Your task to perform on an android device: Add "usb-c to usb-a" to the cart on ebay.com Image 0: 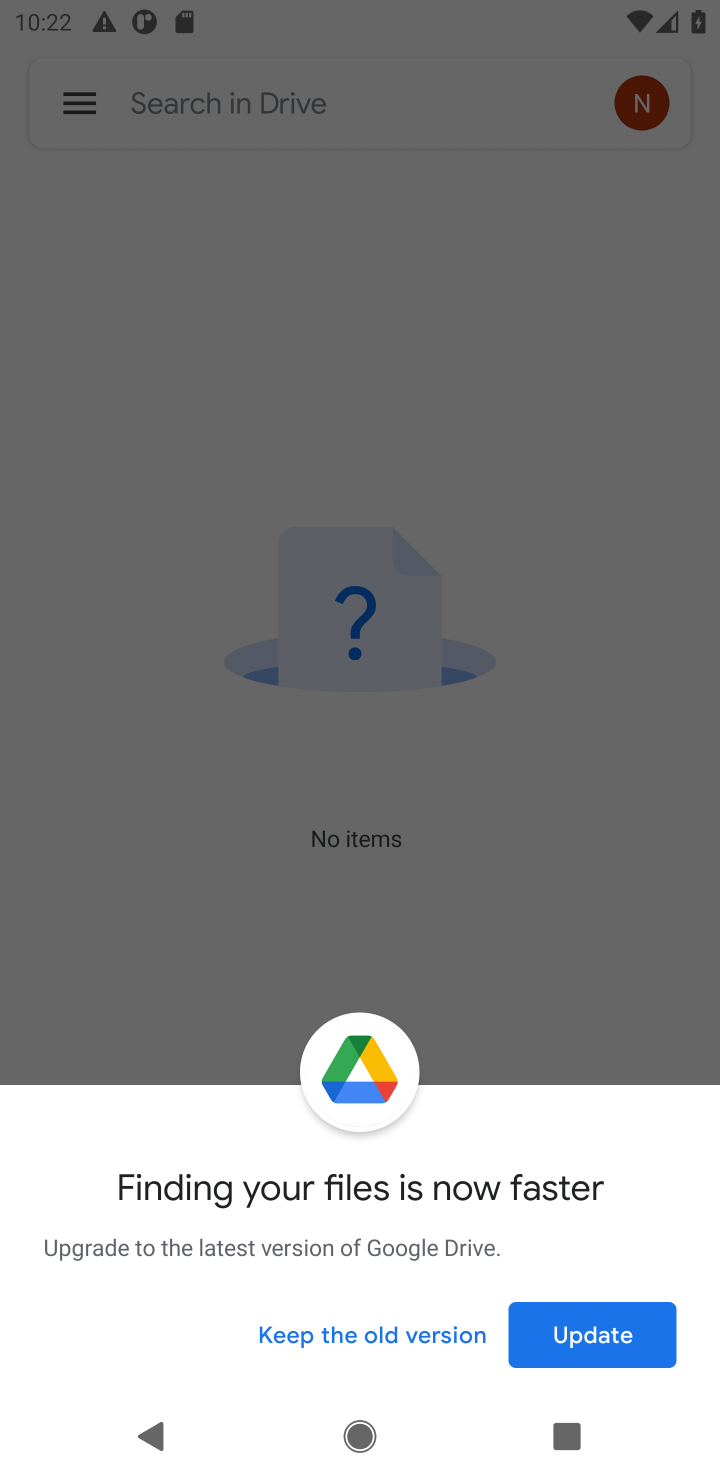
Step 0: press home button
Your task to perform on an android device: Add "usb-c to usb-a" to the cart on ebay.com Image 1: 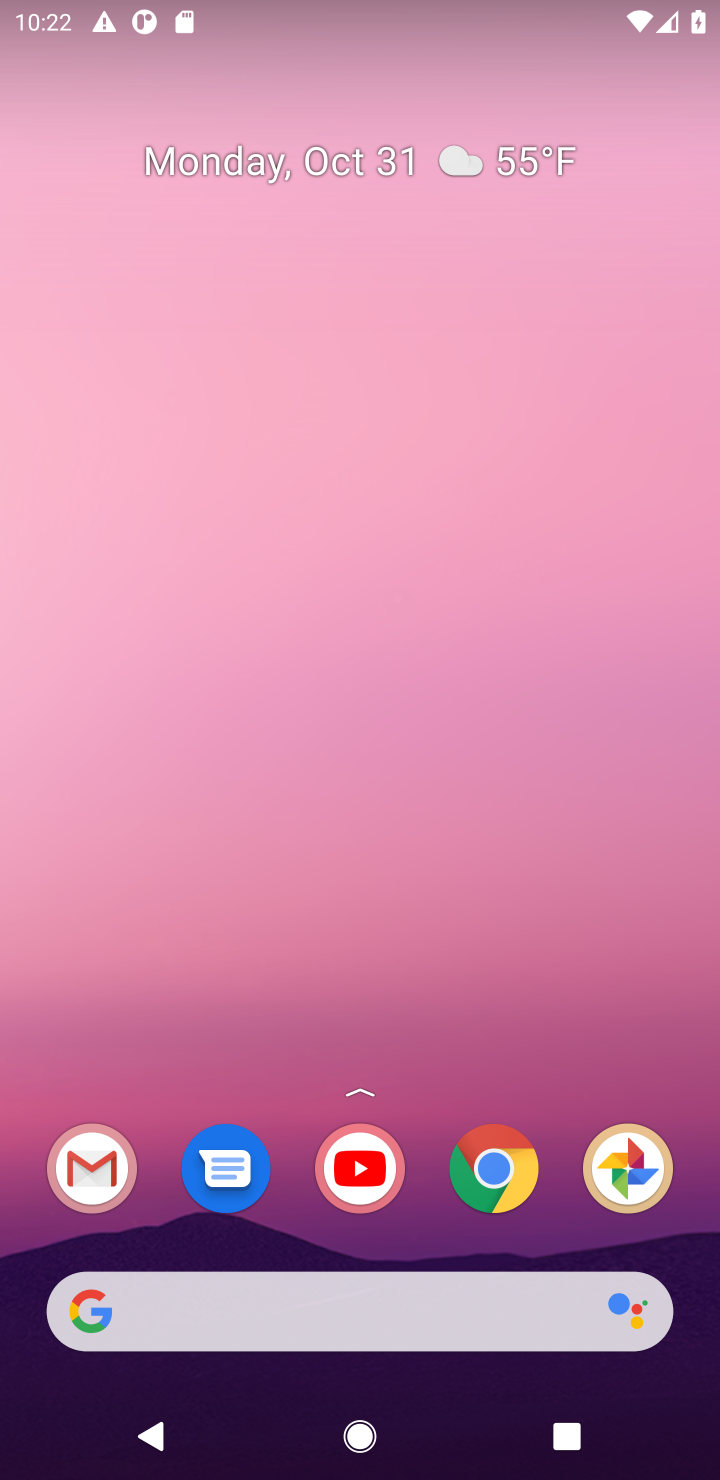
Step 1: click (487, 1165)
Your task to perform on an android device: Add "usb-c to usb-a" to the cart on ebay.com Image 2: 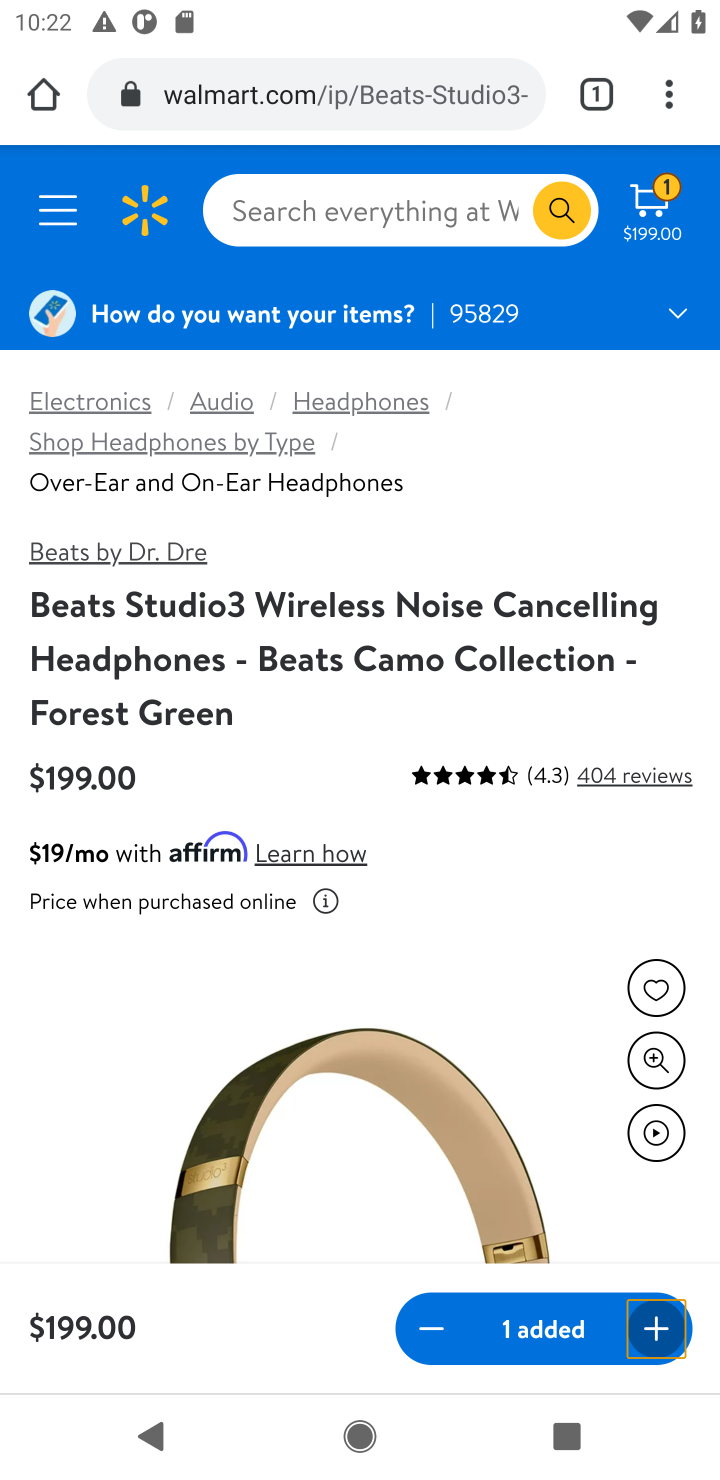
Step 2: click (313, 99)
Your task to perform on an android device: Add "usb-c to usb-a" to the cart on ebay.com Image 3: 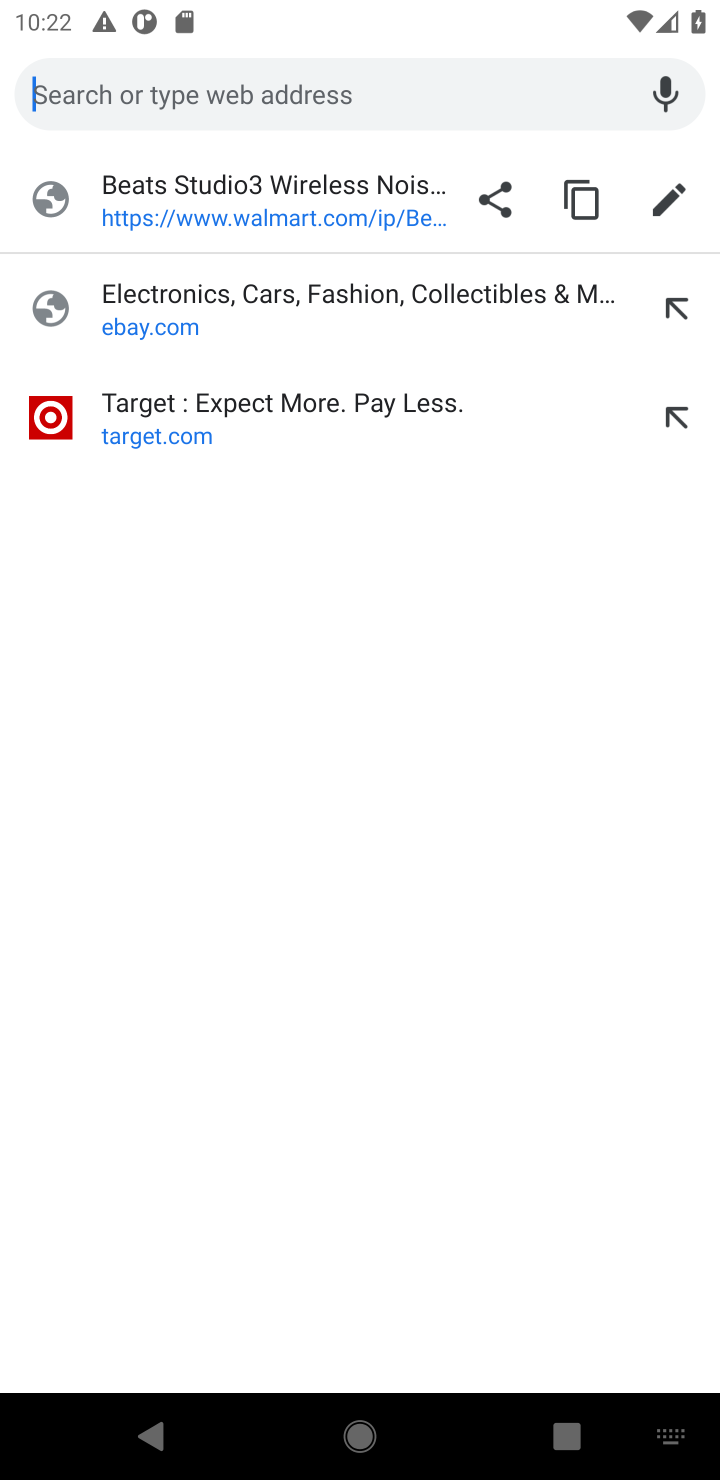
Step 3: type "ebay"
Your task to perform on an android device: Add "usb-c to usb-a" to the cart on ebay.com Image 4: 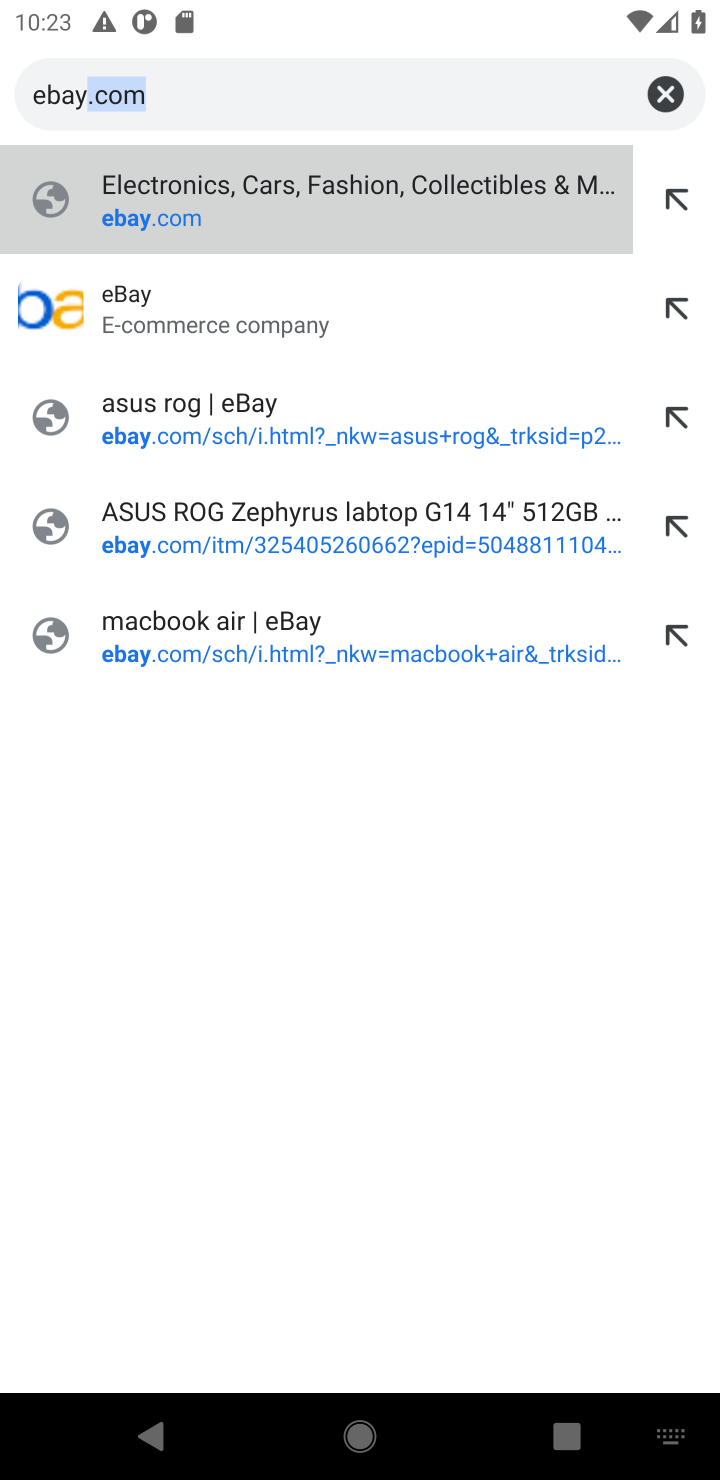
Step 4: press enter
Your task to perform on an android device: Add "usb-c to usb-a" to the cart on ebay.com Image 5: 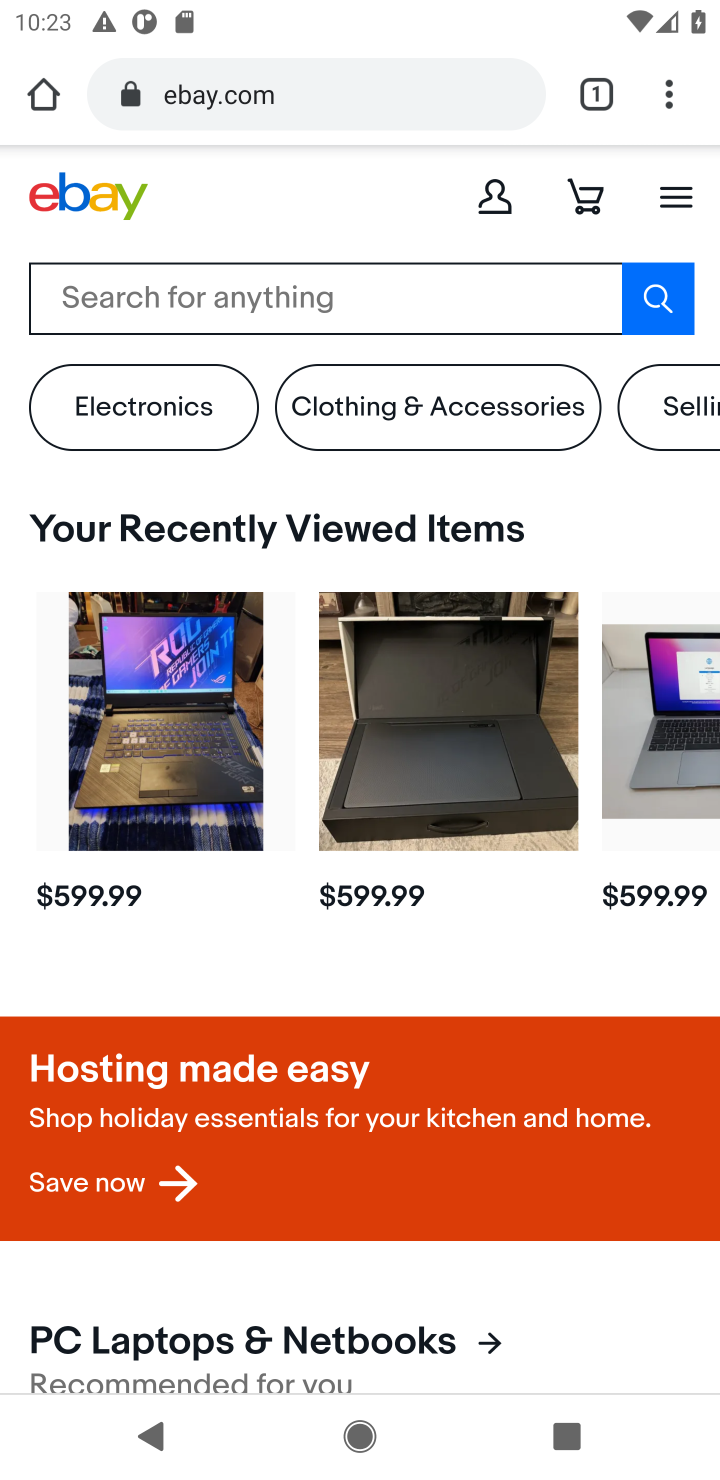
Step 5: click (369, 289)
Your task to perform on an android device: Add "usb-c to usb-a" to the cart on ebay.com Image 6: 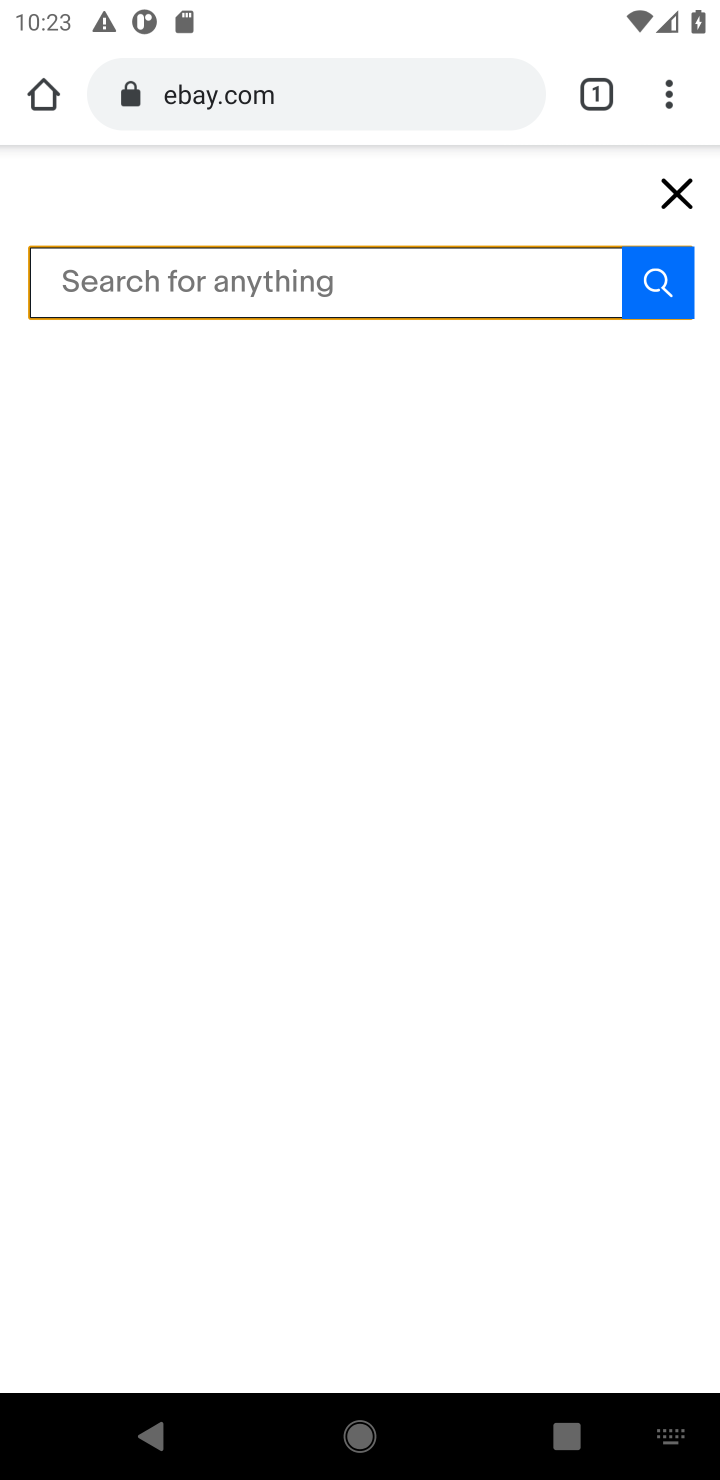
Step 6: type "usb-c to usb-a"
Your task to perform on an android device: Add "usb-c to usb-a" to the cart on ebay.com Image 7: 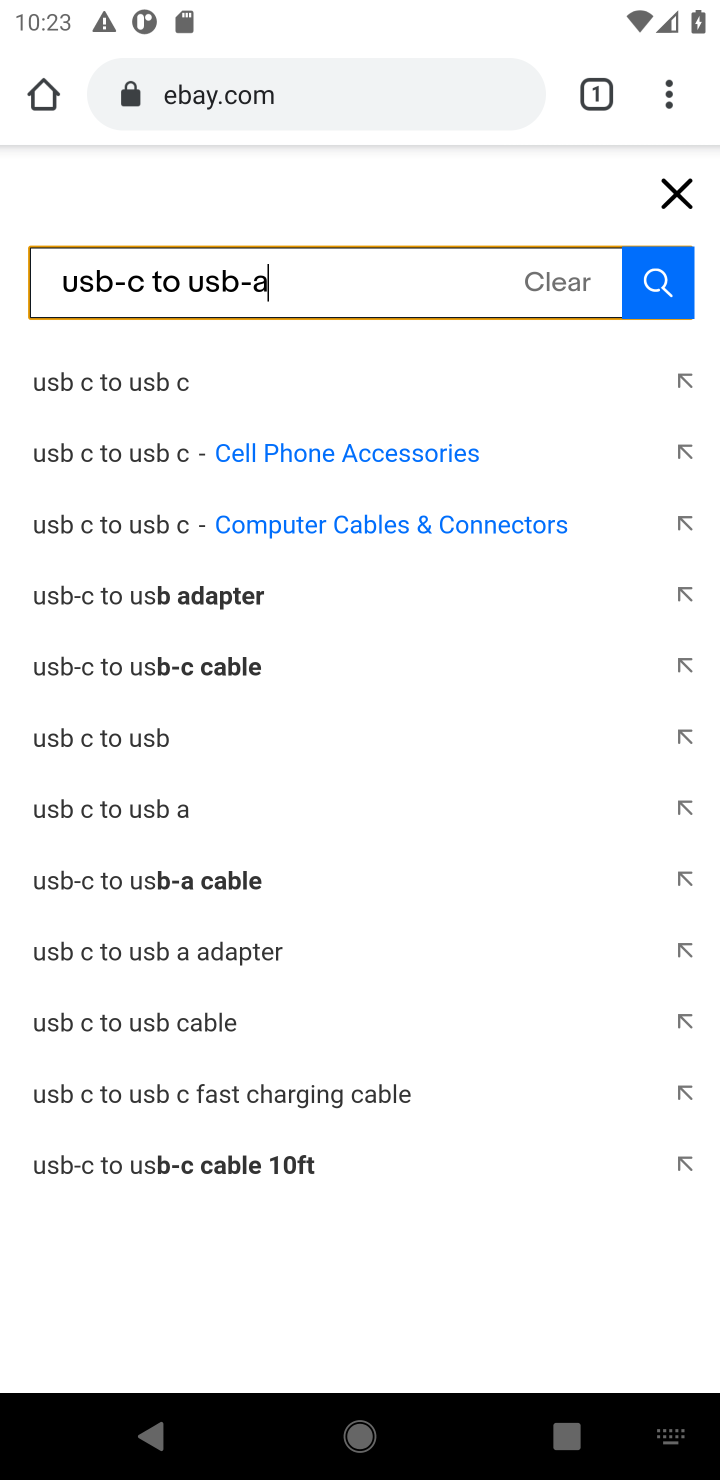
Step 7: press enter
Your task to perform on an android device: Add "usb-c to usb-a" to the cart on ebay.com Image 8: 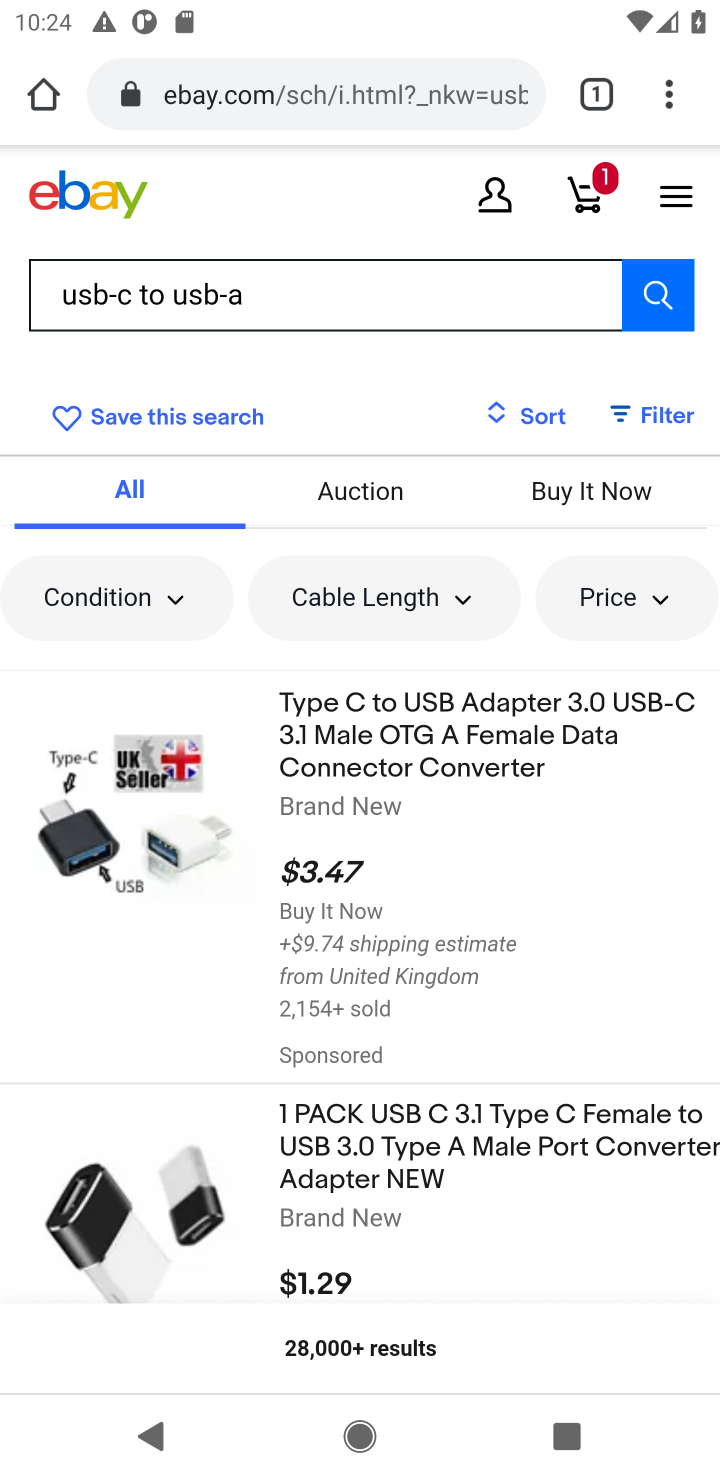
Step 8: click (444, 751)
Your task to perform on an android device: Add "usb-c to usb-a" to the cart on ebay.com Image 9: 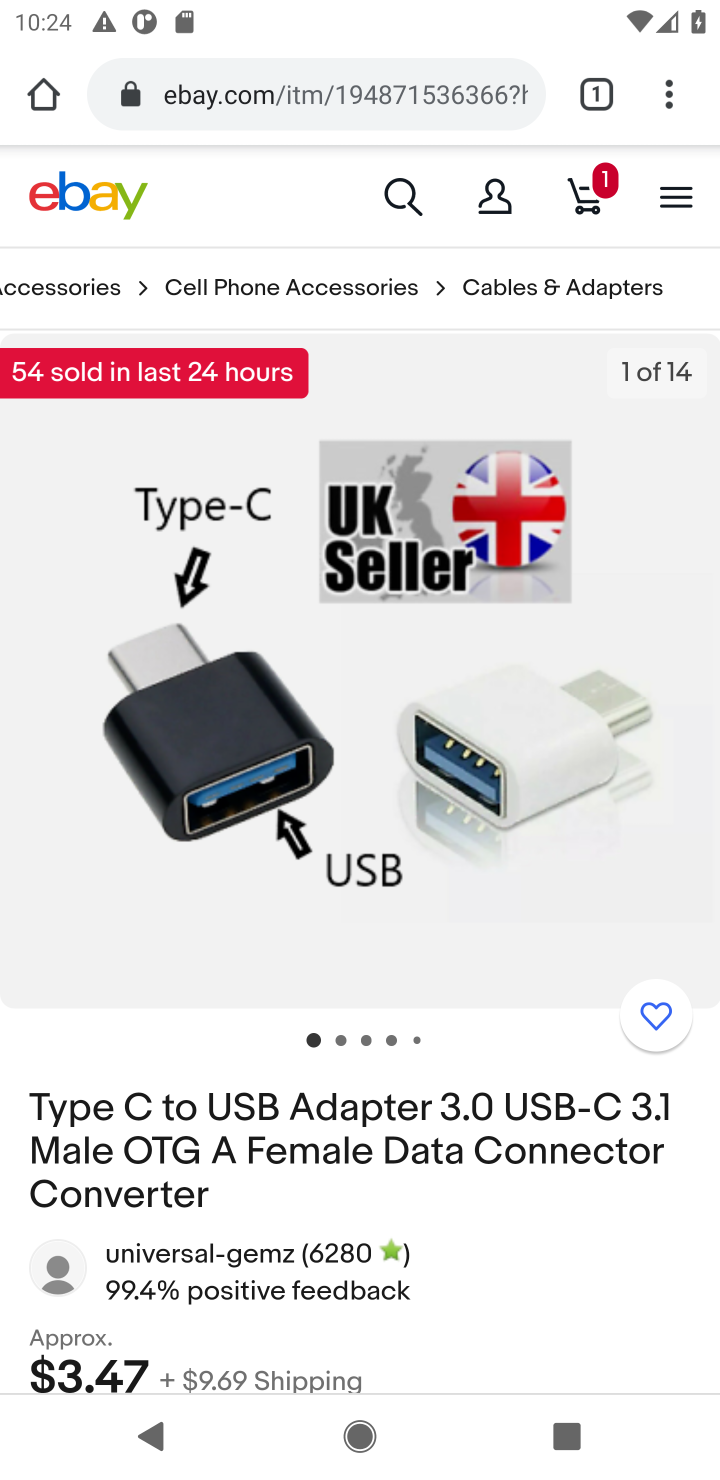
Step 9: drag from (503, 1239) to (370, 807)
Your task to perform on an android device: Add "usb-c to usb-a" to the cart on ebay.com Image 10: 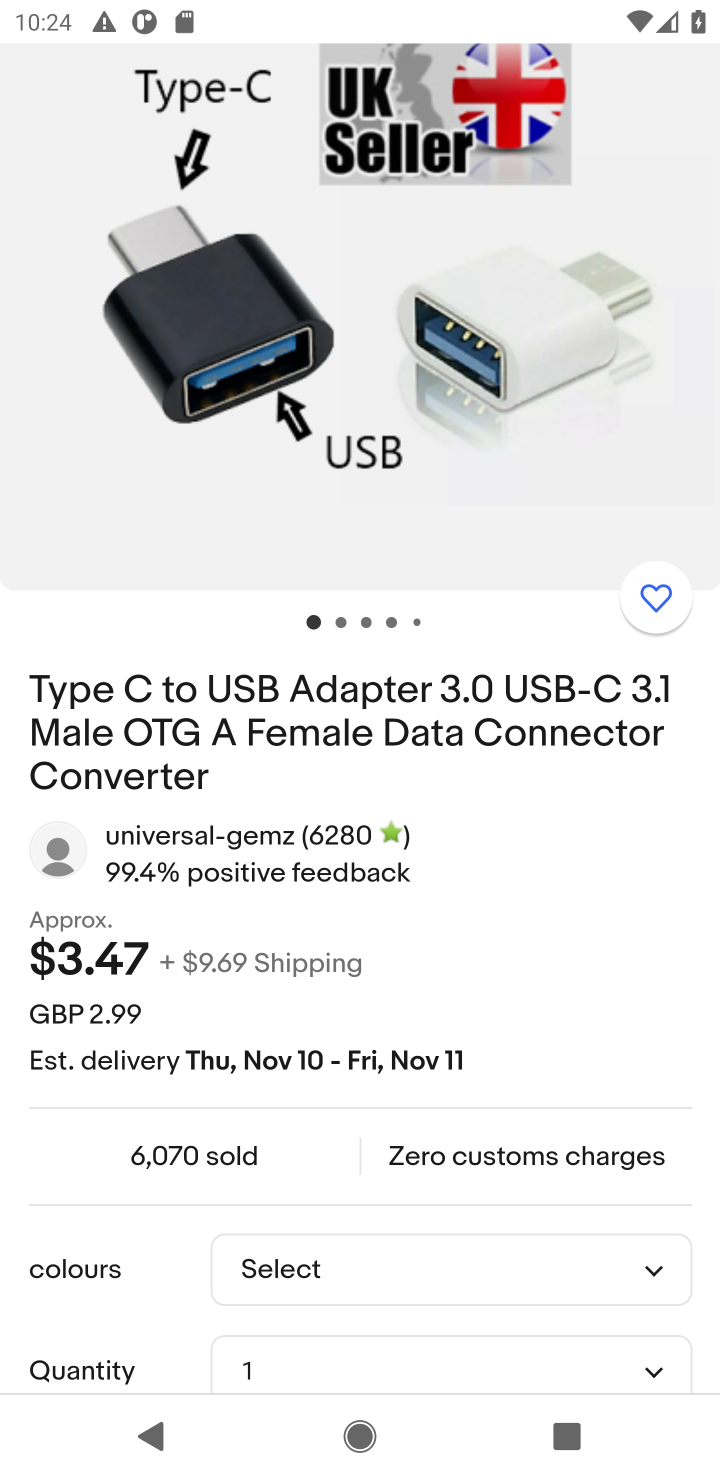
Step 10: drag from (556, 1053) to (458, 810)
Your task to perform on an android device: Add "usb-c to usb-a" to the cart on ebay.com Image 11: 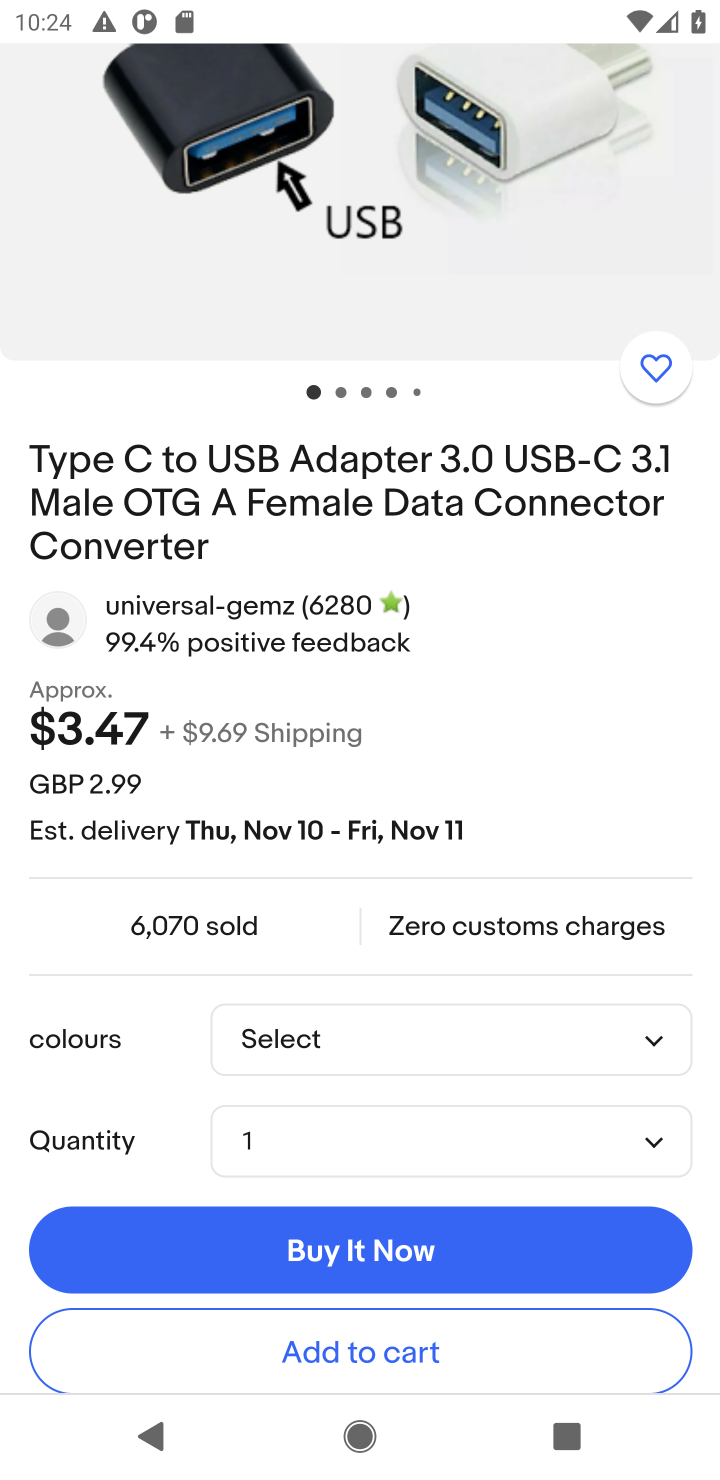
Step 11: click (325, 1355)
Your task to perform on an android device: Add "usb-c to usb-a" to the cart on ebay.com Image 12: 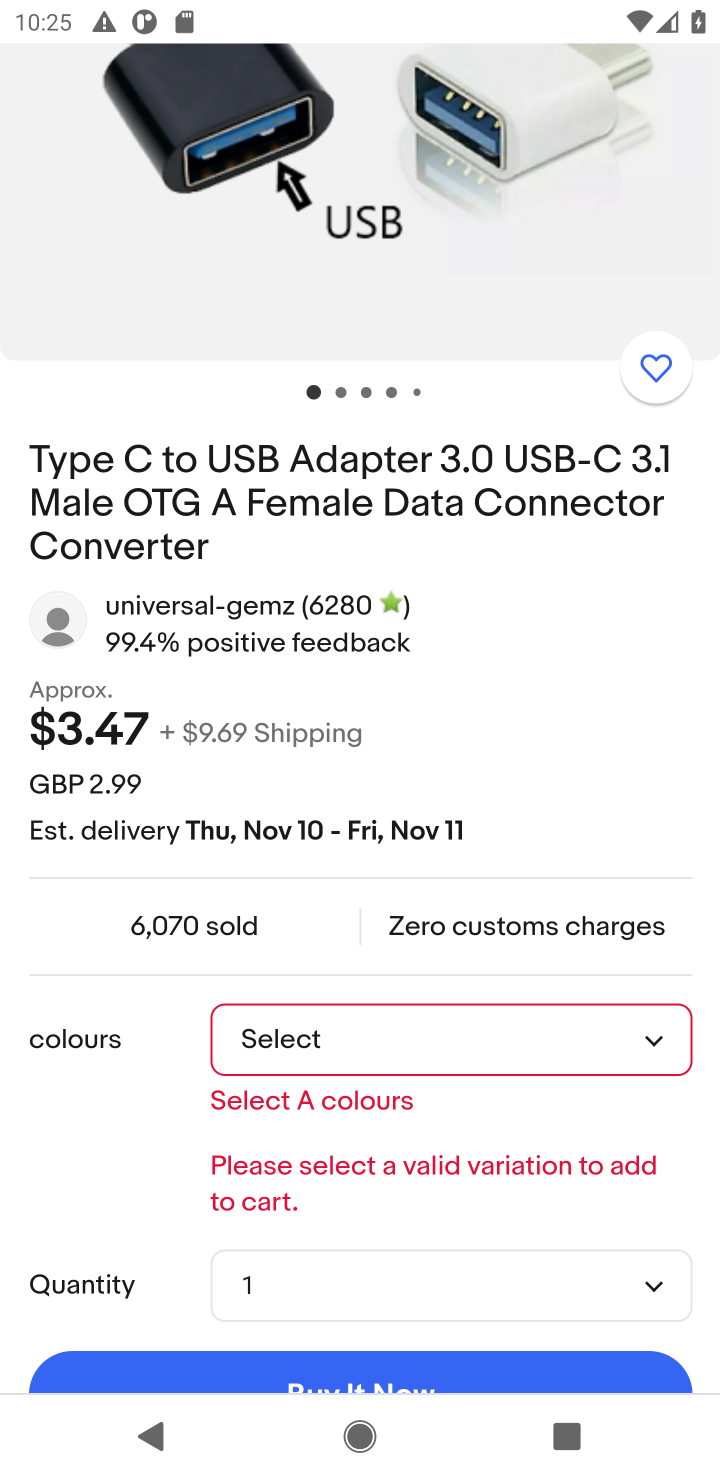
Step 12: click (618, 1035)
Your task to perform on an android device: Add "usb-c to usb-a" to the cart on ebay.com Image 13: 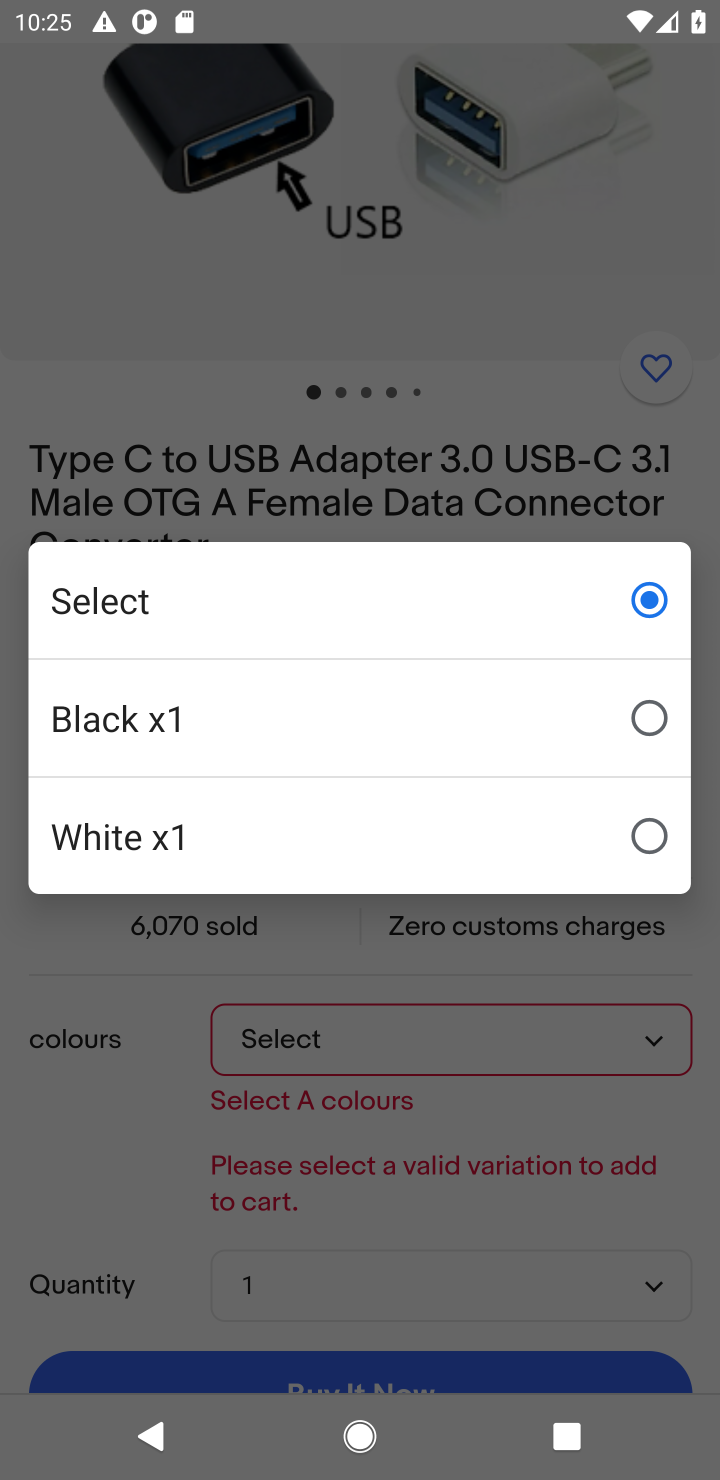
Step 13: click (323, 702)
Your task to perform on an android device: Add "usb-c to usb-a" to the cart on ebay.com Image 14: 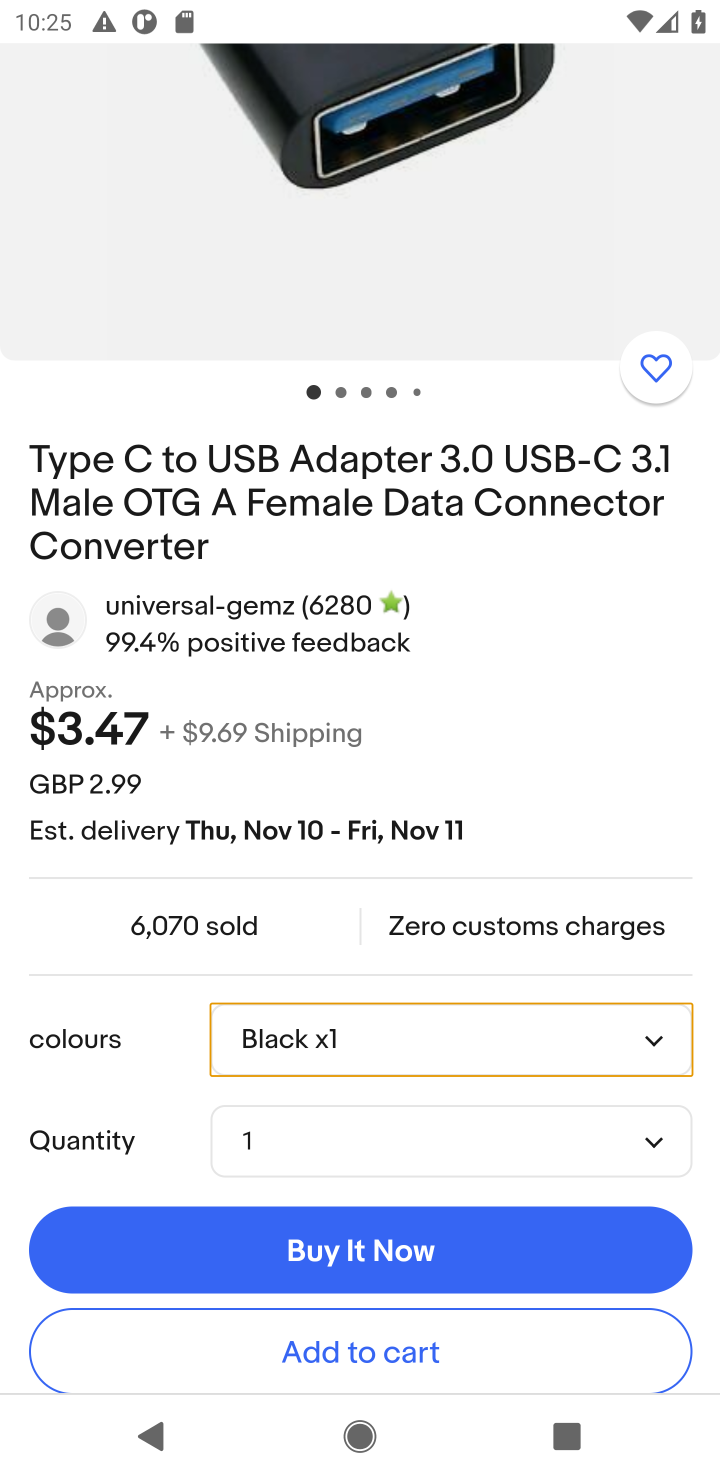
Step 14: click (384, 1363)
Your task to perform on an android device: Add "usb-c to usb-a" to the cart on ebay.com Image 15: 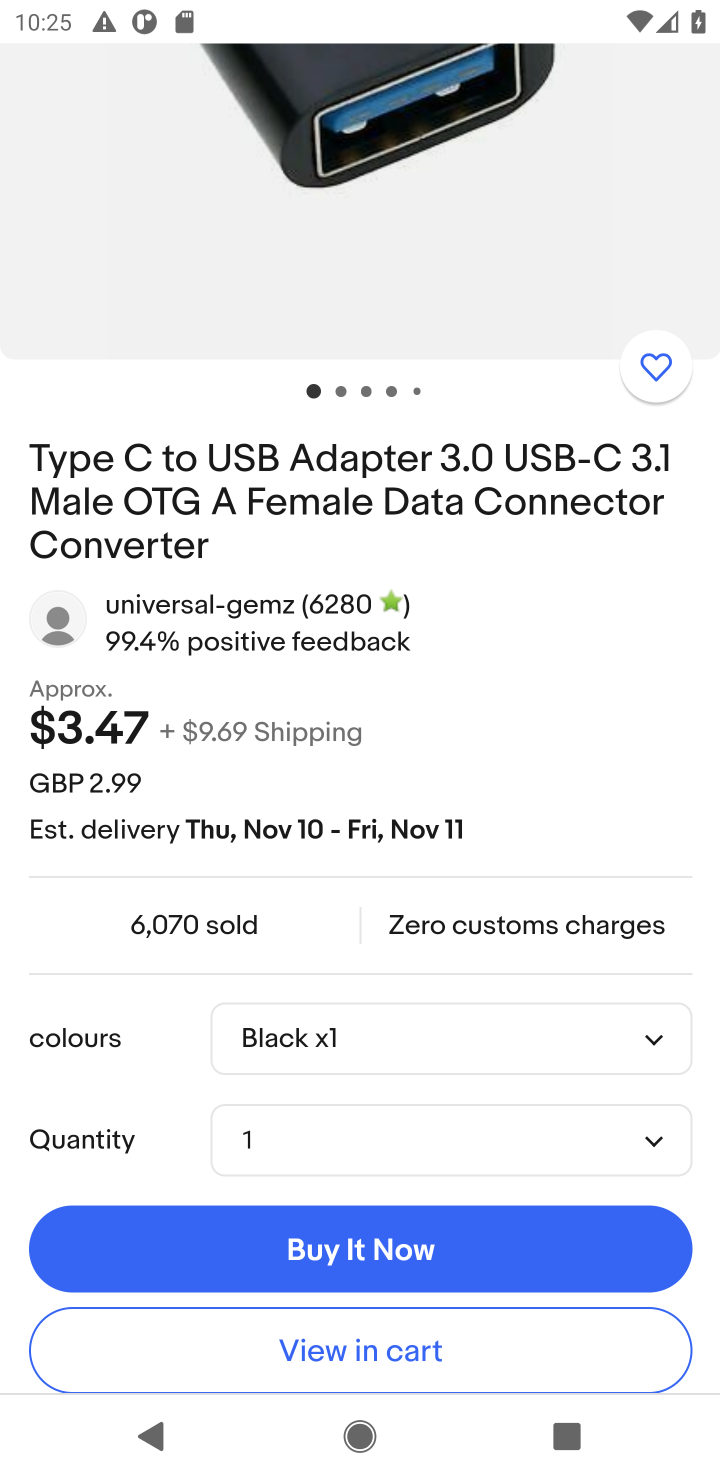
Step 15: click (384, 1369)
Your task to perform on an android device: Add "usb-c to usb-a" to the cart on ebay.com Image 16: 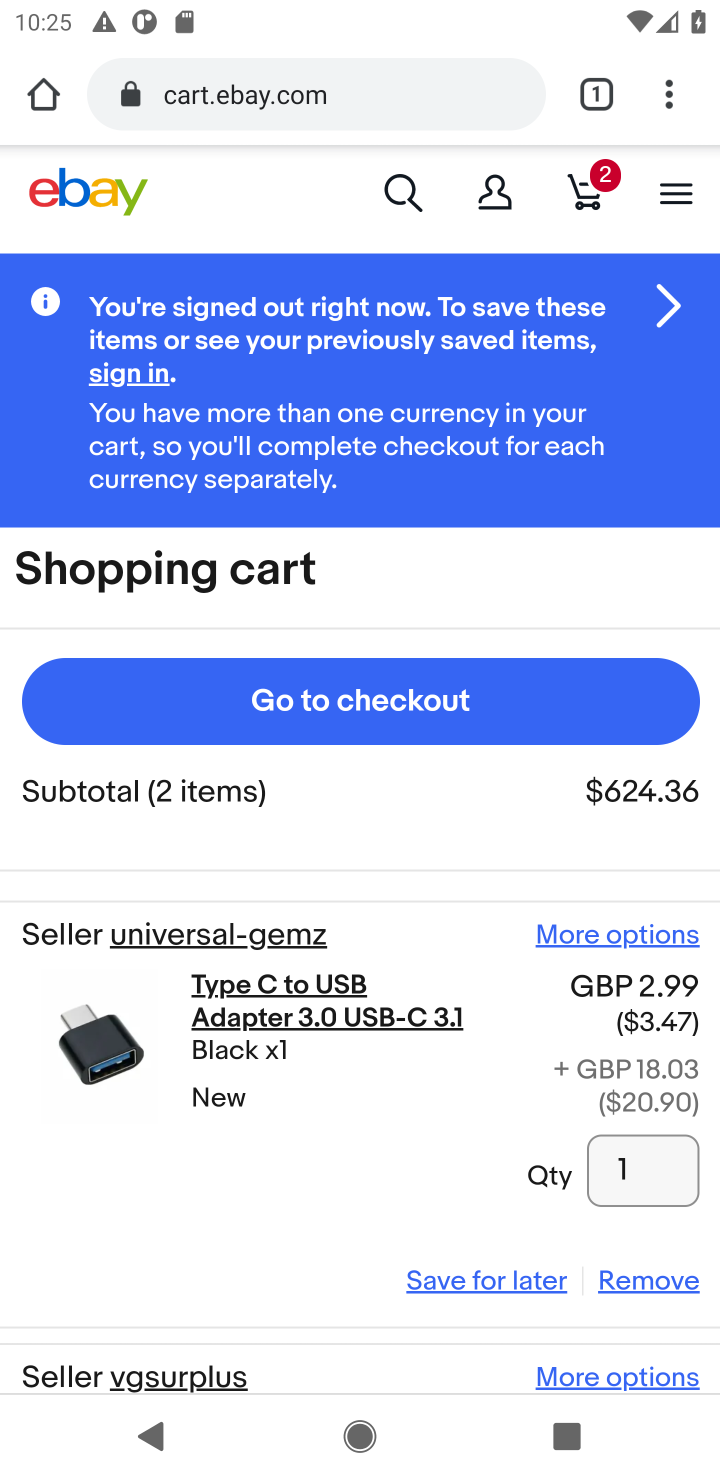
Step 16: task complete